Your task to perform on an android device: turn notification dots on Image 0: 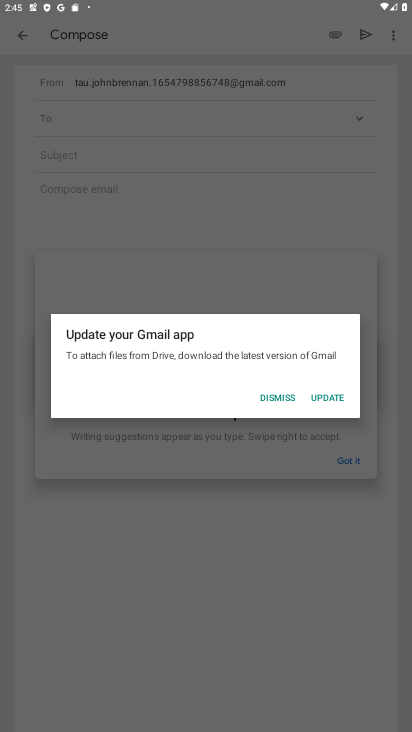
Step 0: press home button
Your task to perform on an android device: turn notification dots on Image 1: 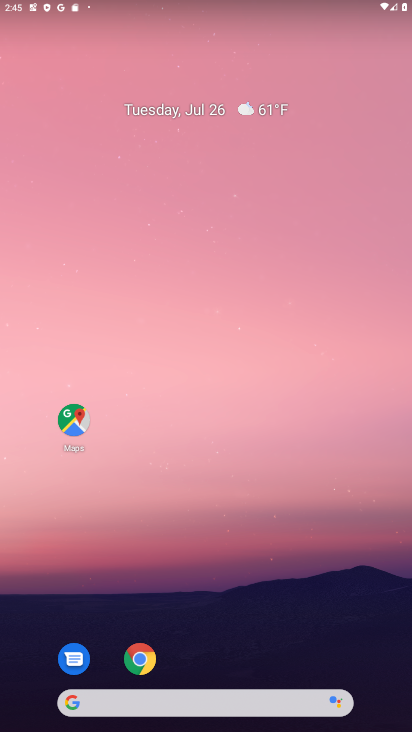
Step 1: drag from (389, 710) to (357, 165)
Your task to perform on an android device: turn notification dots on Image 2: 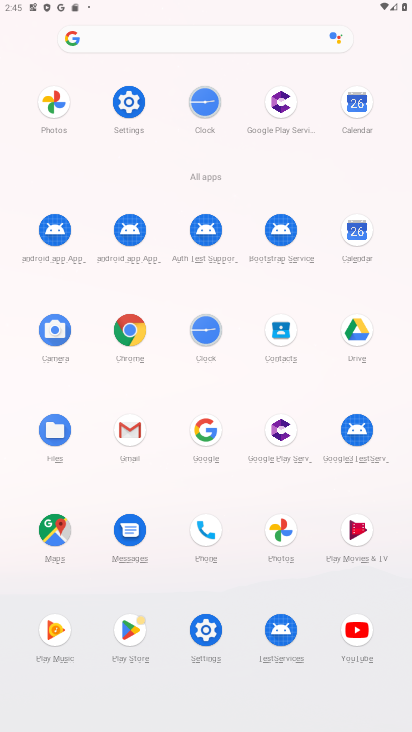
Step 2: click (119, 98)
Your task to perform on an android device: turn notification dots on Image 3: 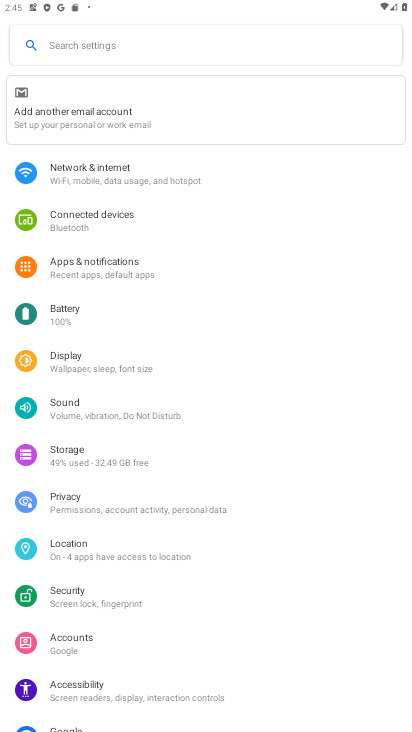
Step 3: click (106, 260)
Your task to perform on an android device: turn notification dots on Image 4: 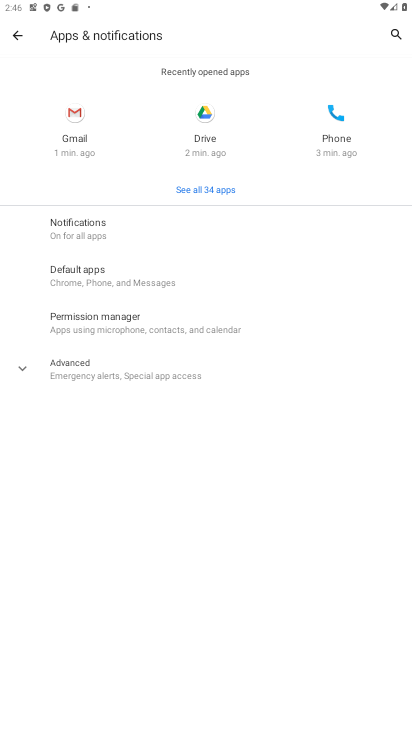
Step 4: click (22, 359)
Your task to perform on an android device: turn notification dots on Image 5: 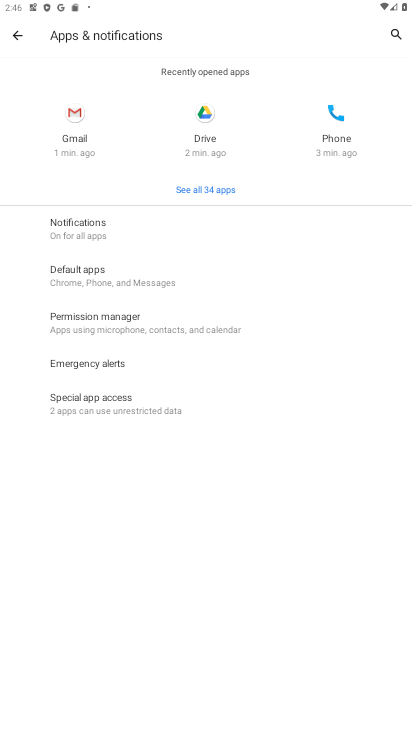
Step 5: click (59, 237)
Your task to perform on an android device: turn notification dots on Image 6: 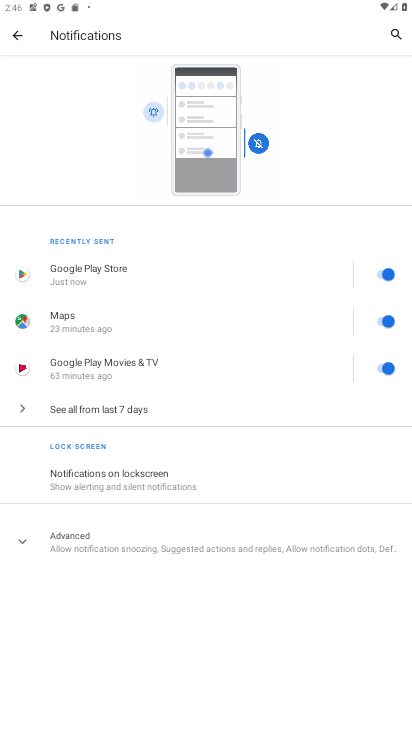
Step 6: click (28, 540)
Your task to perform on an android device: turn notification dots on Image 7: 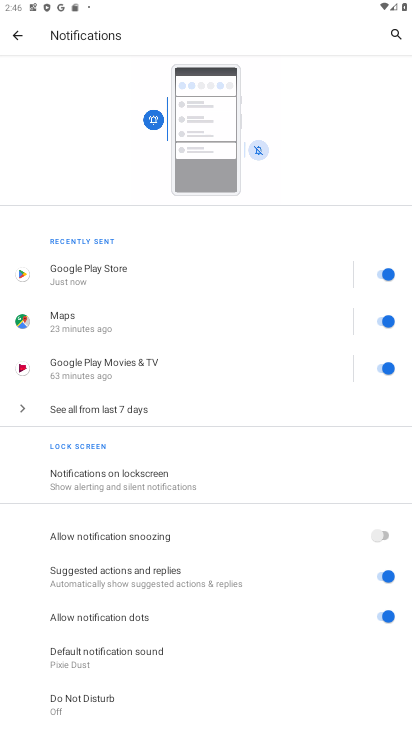
Step 7: click (119, 619)
Your task to perform on an android device: turn notification dots on Image 8: 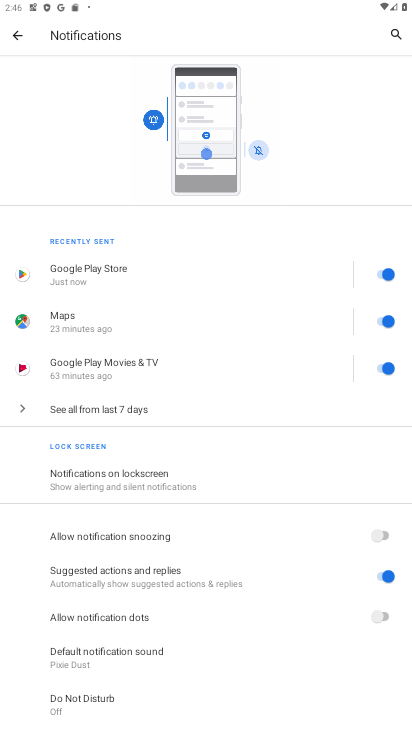
Step 8: click (369, 614)
Your task to perform on an android device: turn notification dots on Image 9: 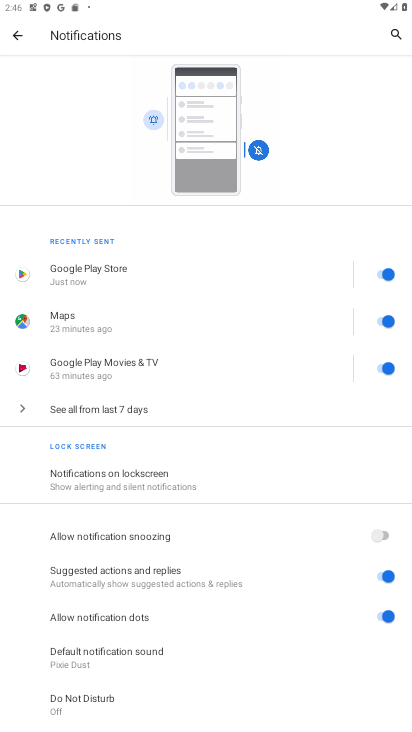
Step 9: task complete